Your task to perform on an android device: Add macbook pro 13 inch to the cart on costco, then select checkout. Image 0: 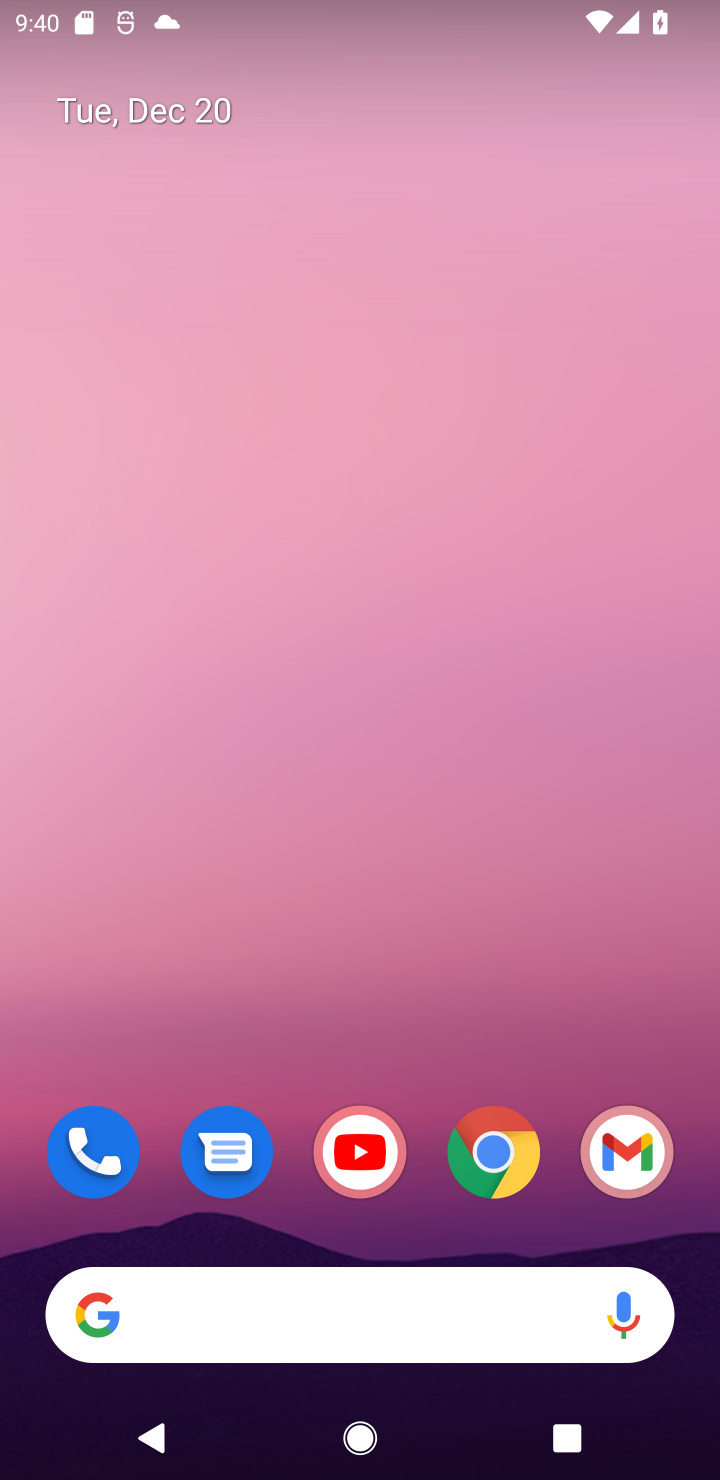
Step 0: click (503, 1140)
Your task to perform on an android device: Add macbook pro 13 inch to the cart on costco, then select checkout. Image 1: 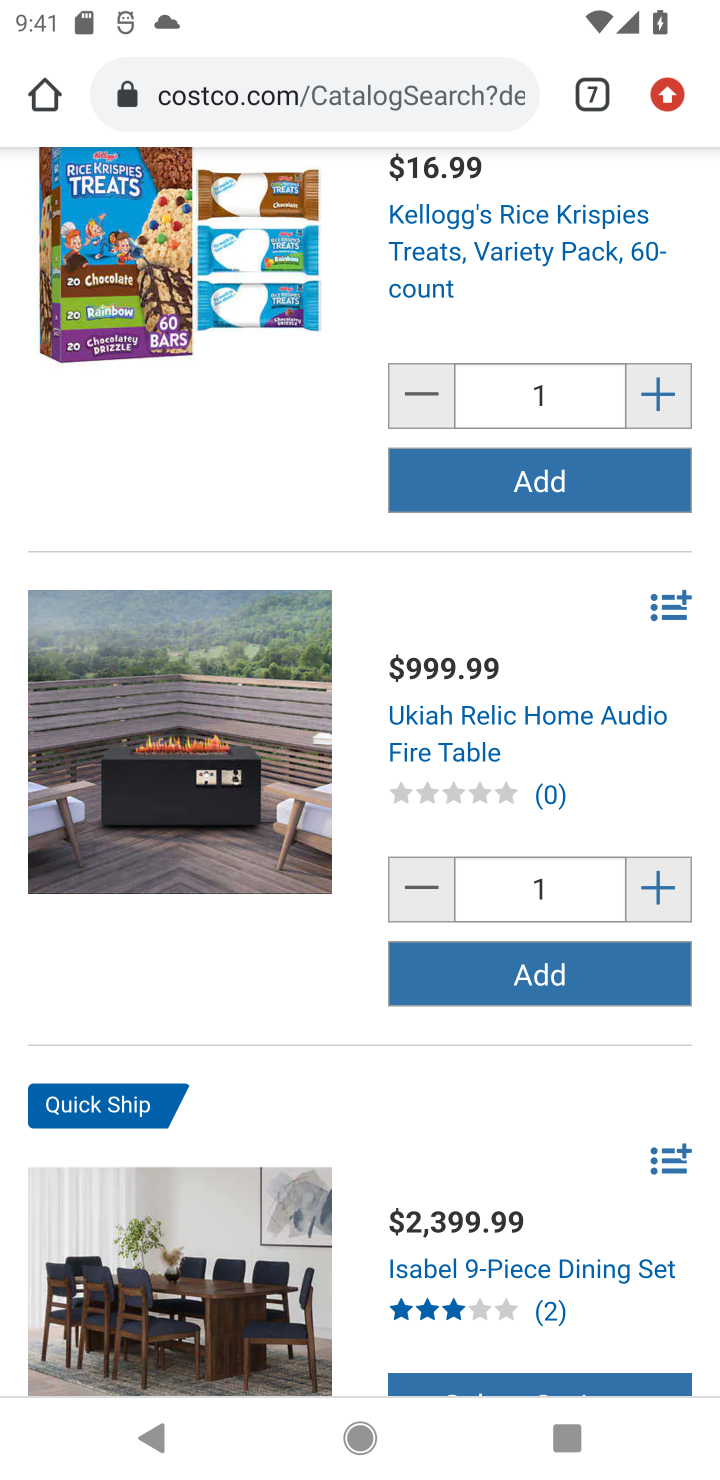
Step 1: drag from (291, 376) to (309, 1171)
Your task to perform on an android device: Add macbook pro 13 inch to the cart on costco, then select checkout. Image 2: 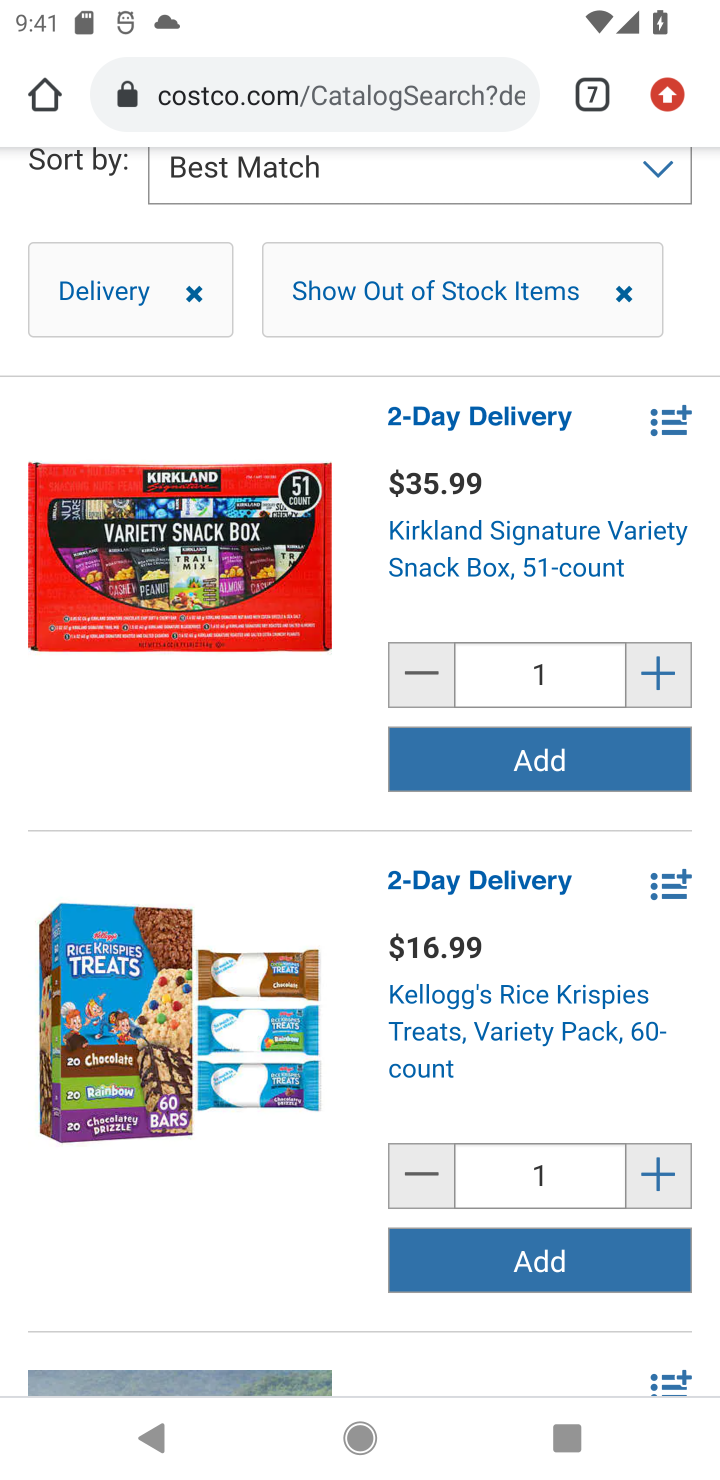
Step 2: drag from (460, 197) to (348, 1036)
Your task to perform on an android device: Add macbook pro 13 inch to the cart on costco, then select checkout. Image 3: 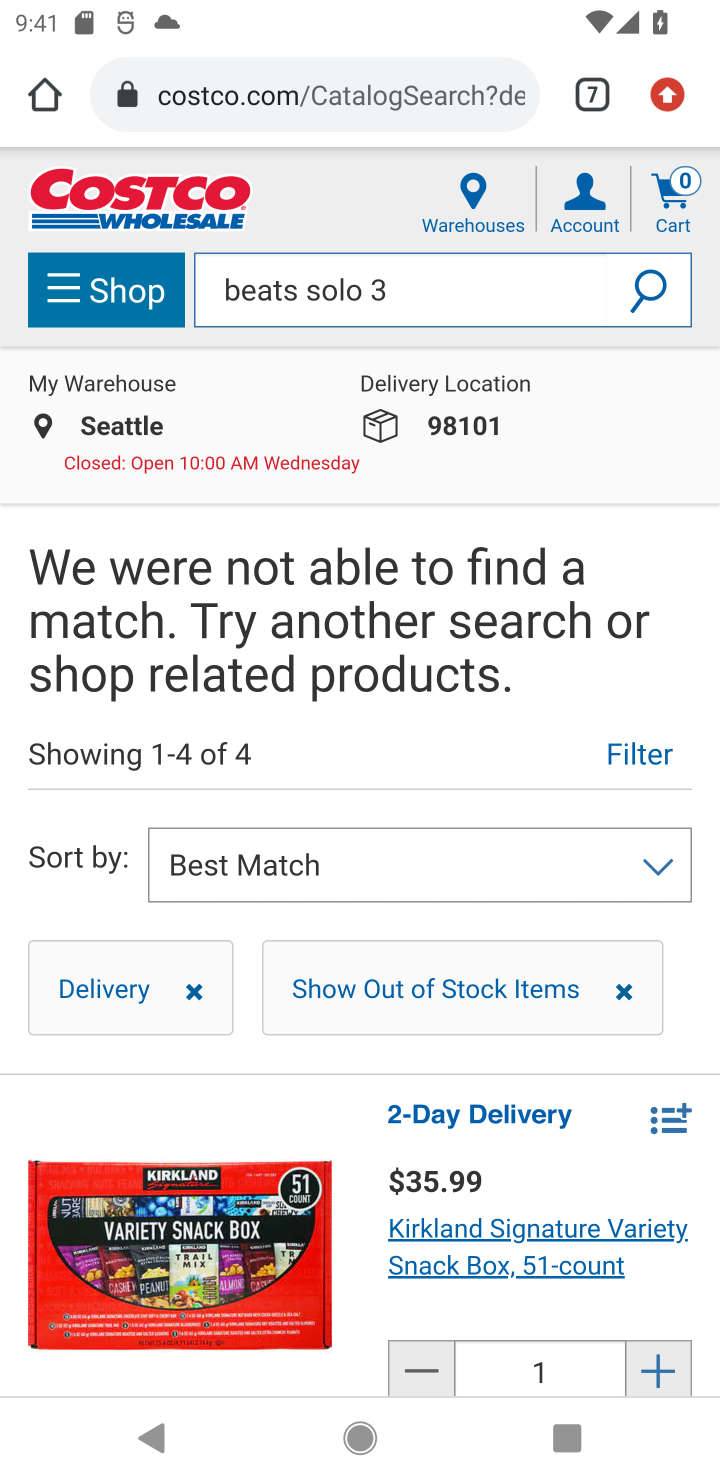
Step 3: click (477, 282)
Your task to perform on an android device: Add macbook pro 13 inch to the cart on costco, then select checkout. Image 4: 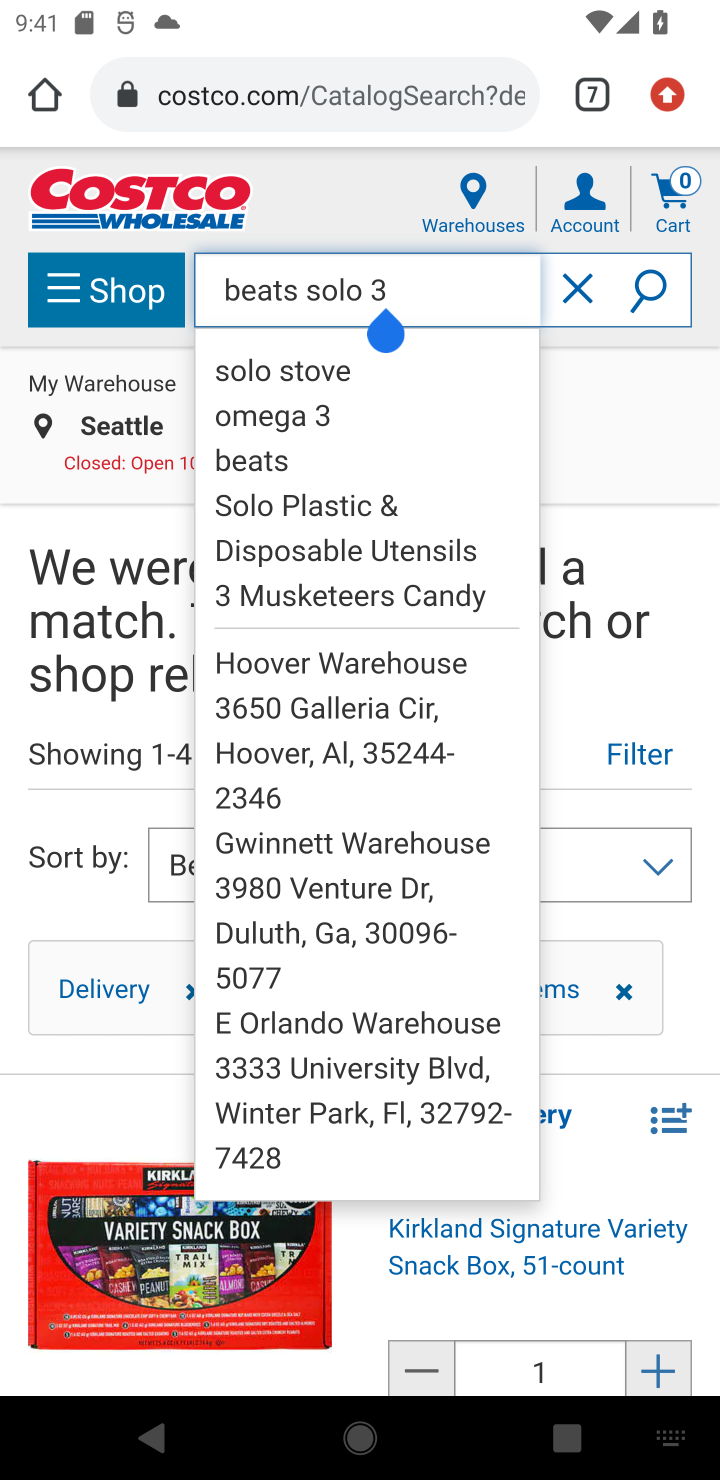
Step 4: click (578, 292)
Your task to perform on an android device: Add macbook pro 13 inch to the cart on costco, then select checkout. Image 5: 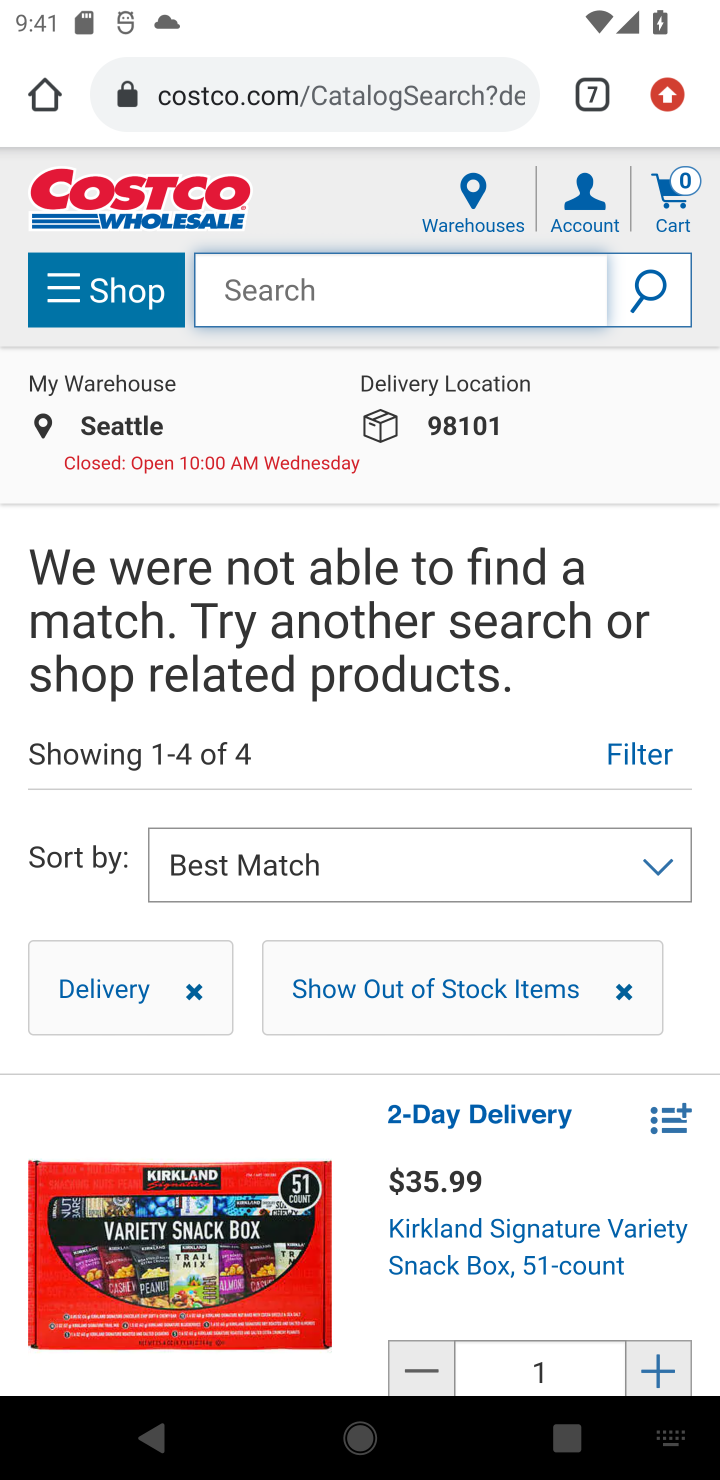
Step 5: type "macbook pro 13 inch"
Your task to perform on an android device: Add macbook pro 13 inch to the cart on costco, then select checkout. Image 6: 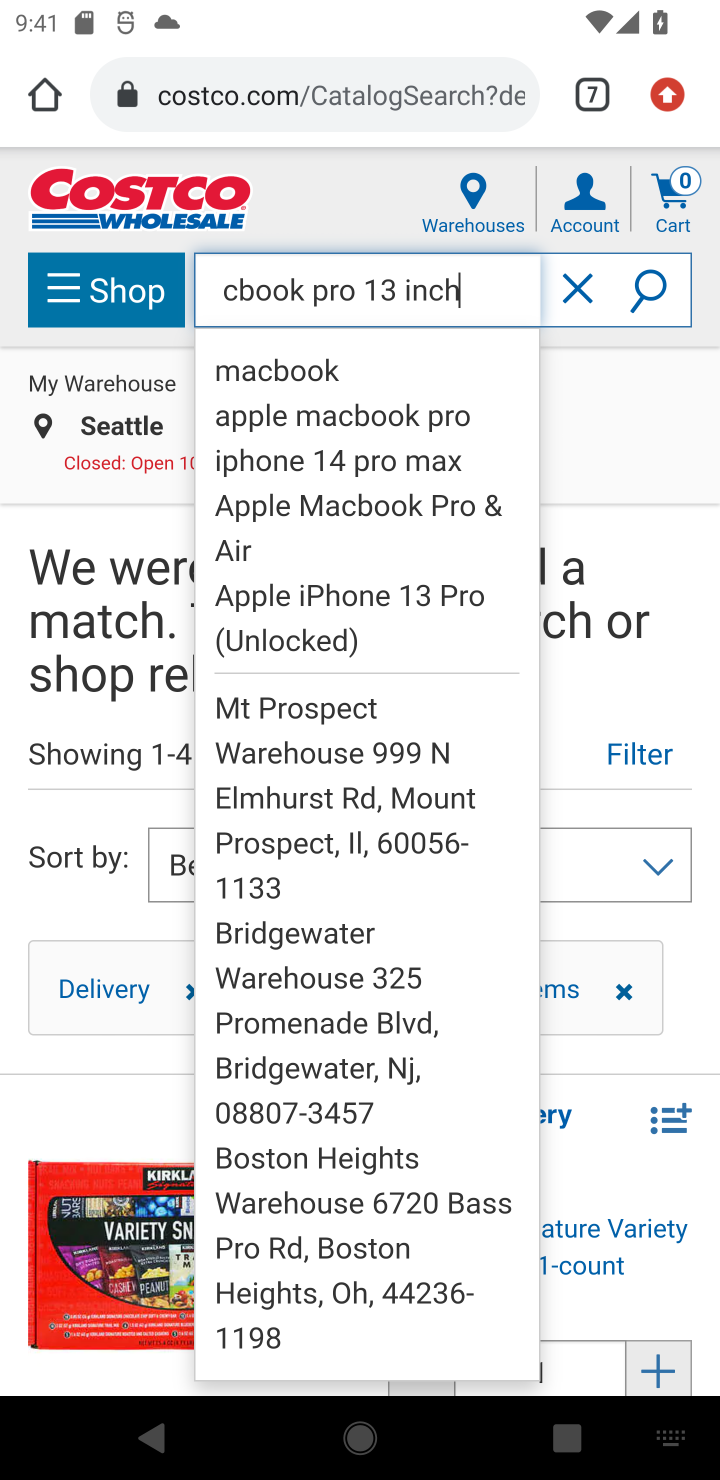
Step 6: click (645, 273)
Your task to perform on an android device: Add macbook pro 13 inch to the cart on costco, then select checkout. Image 7: 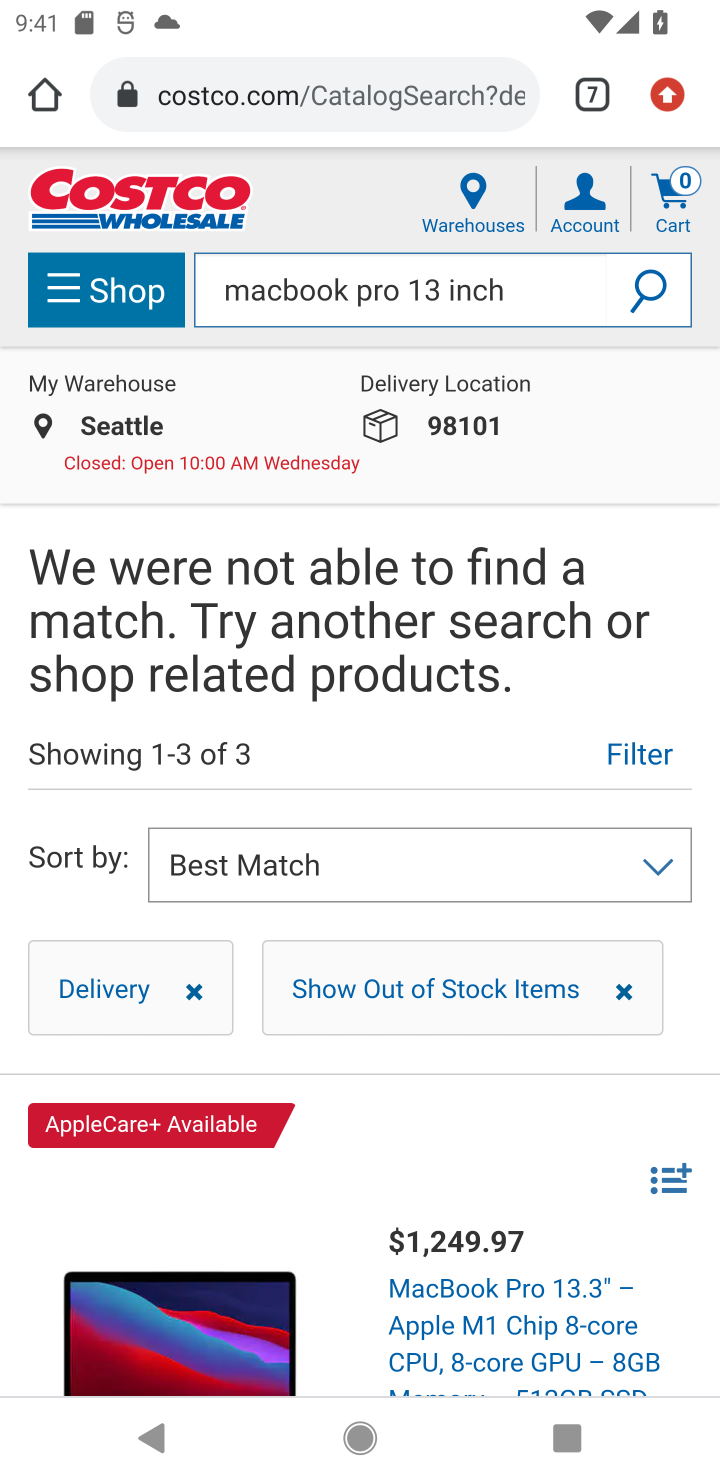
Step 7: drag from (532, 1136) to (553, 450)
Your task to perform on an android device: Add macbook pro 13 inch to the cart on costco, then select checkout. Image 8: 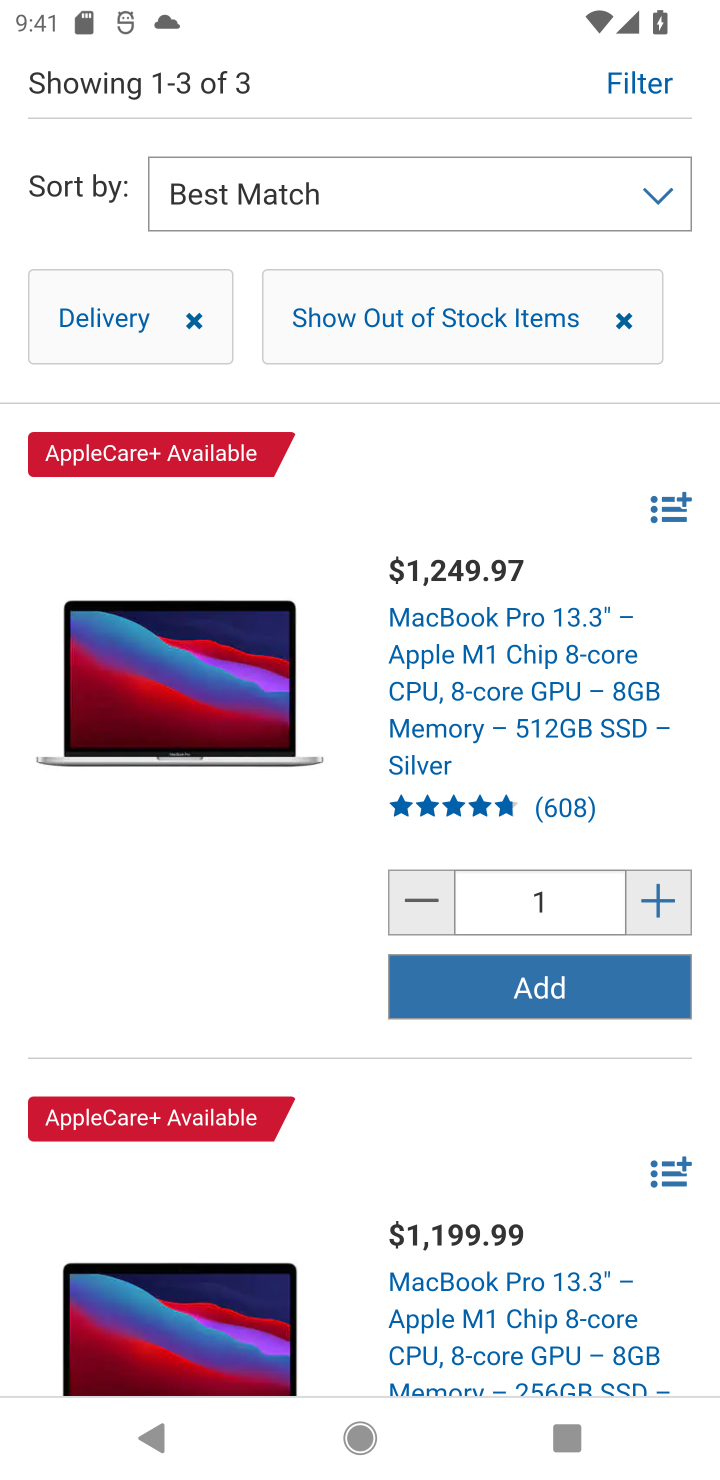
Step 8: click (558, 985)
Your task to perform on an android device: Add macbook pro 13 inch to the cart on costco, then select checkout. Image 9: 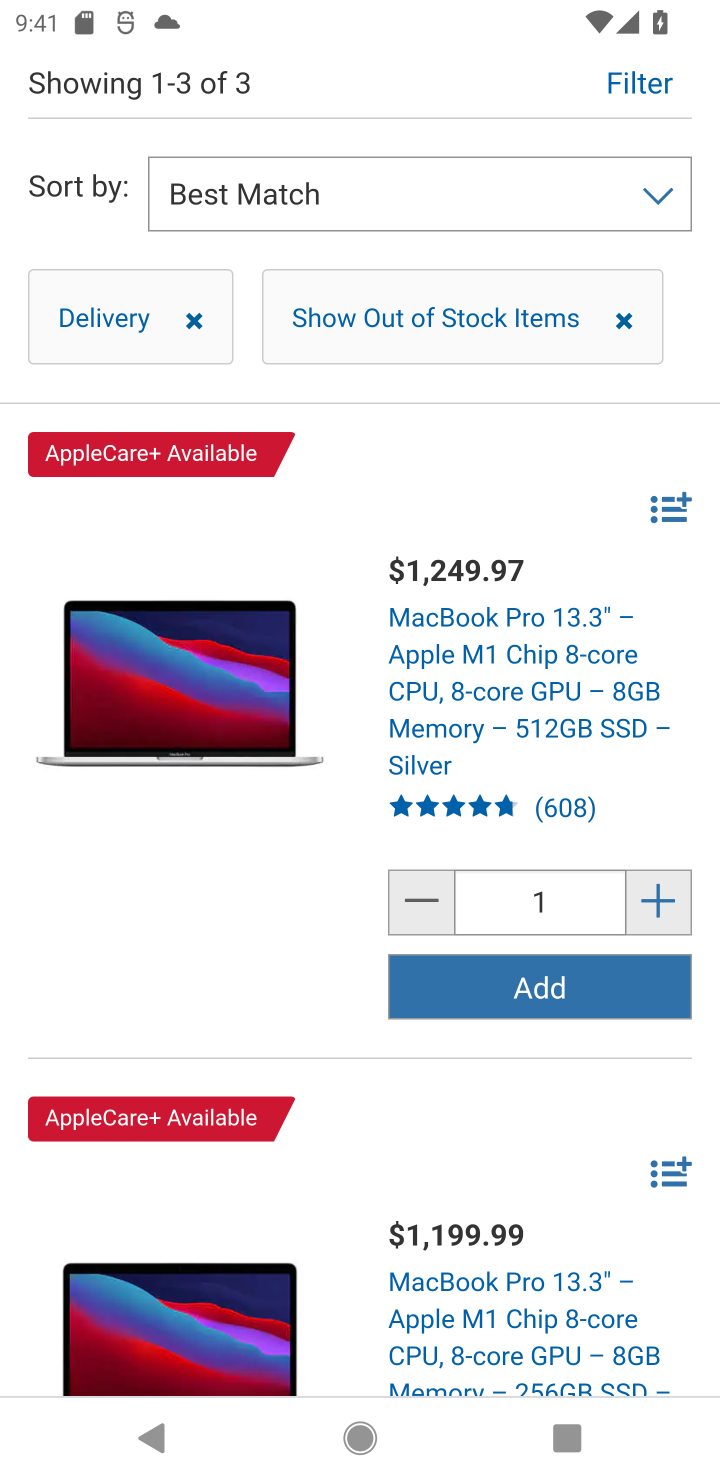
Step 9: task complete